Your task to perform on an android device: Open calendar and show me the second week of next month Image 0: 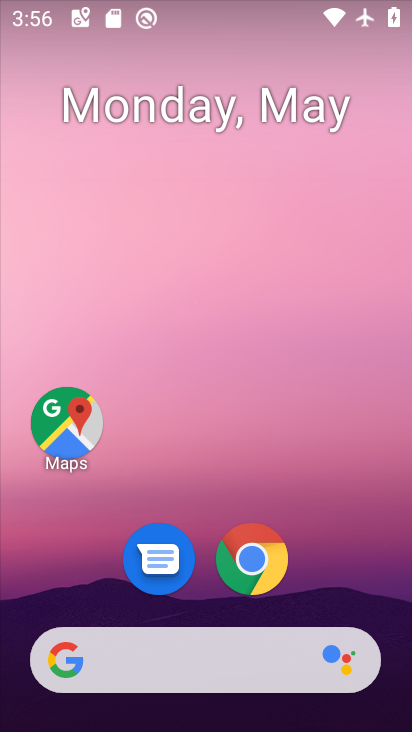
Step 0: drag from (296, 584) to (269, 4)
Your task to perform on an android device: Open calendar and show me the second week of next month Image 1: 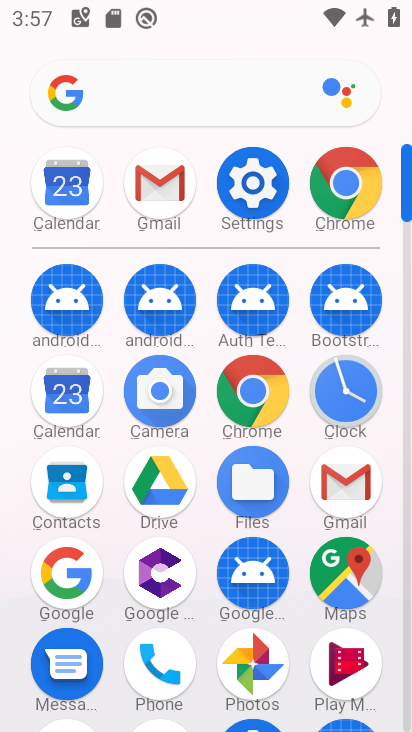
Step 1: click (55, 402)
Your task to perform on an android device: Open calendar and show me the second week of next month Image 2: 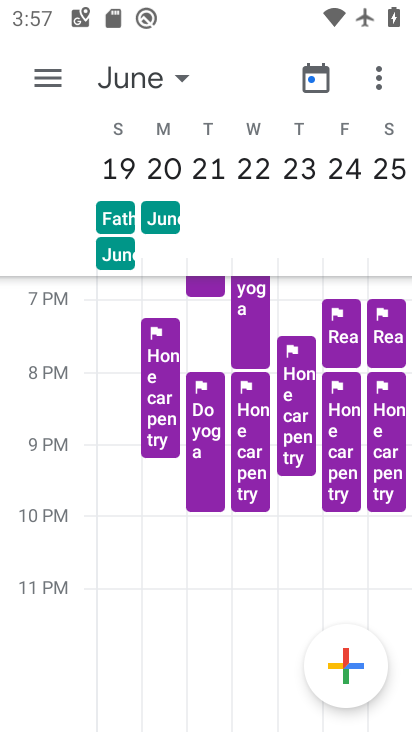
Step 2: click (144, 84)
Your task to perform on an android device: Open calendar and show me the second week of next month Image 3: 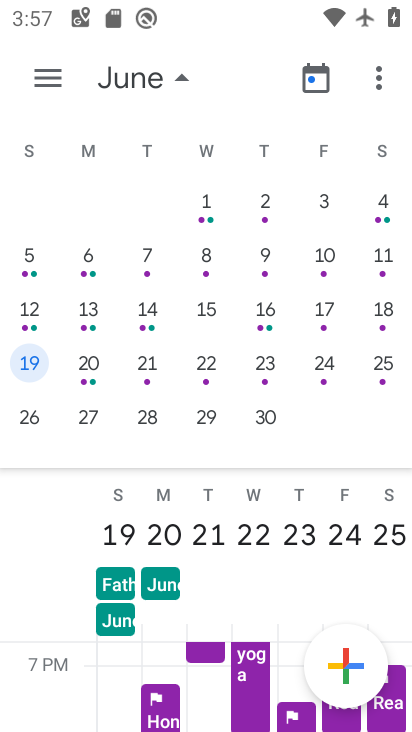
Step 3: click (27, 313)
Your task to perform on an android device: Open calendar and show me the second week of next month Image 4: 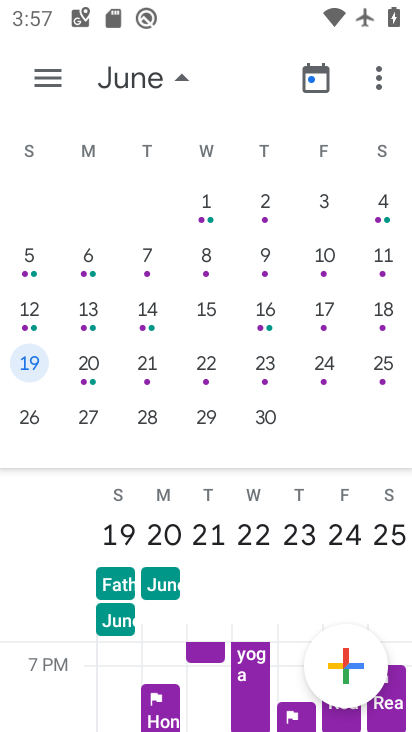
Step 4: click (37, 308)
Your task to perform on an android device: Open calendar and show me the second week of next month Image 5: 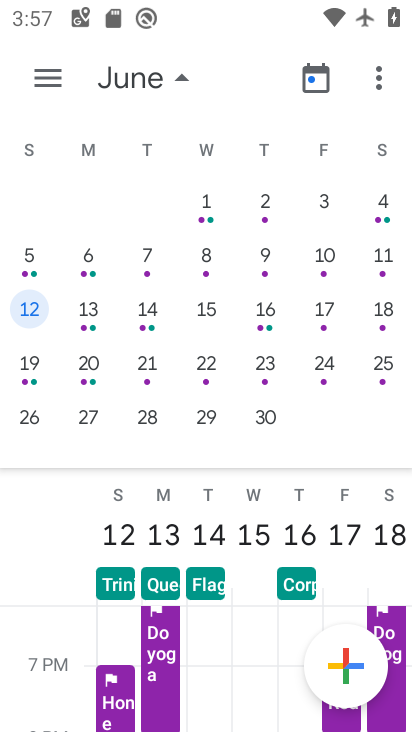
Step 5: task complete